Your task to perform on an android device: check data usage Image 0: 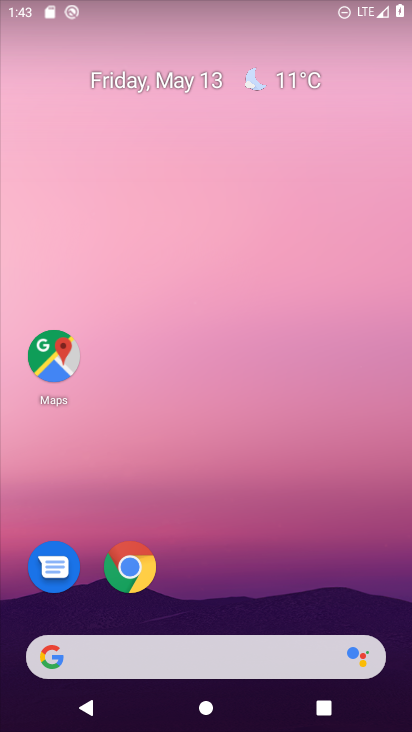
Step 0: drag from (218, 603) to (260, 0)
Your task to perform on an android device: check data usage Image 1: 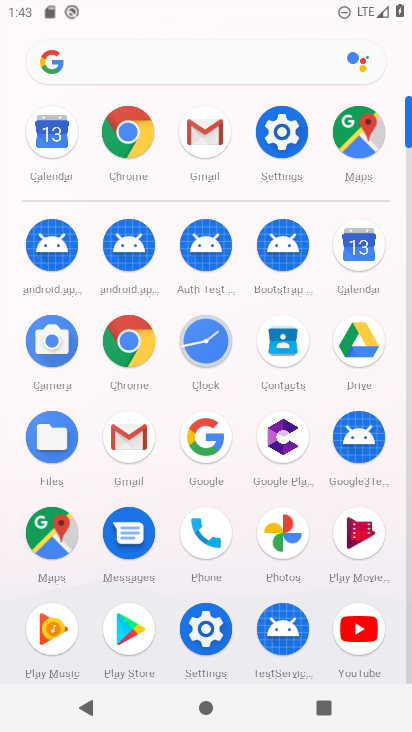
Step 1: click (278, 133)
Your task to perform on an android device: check data usage Image 2: 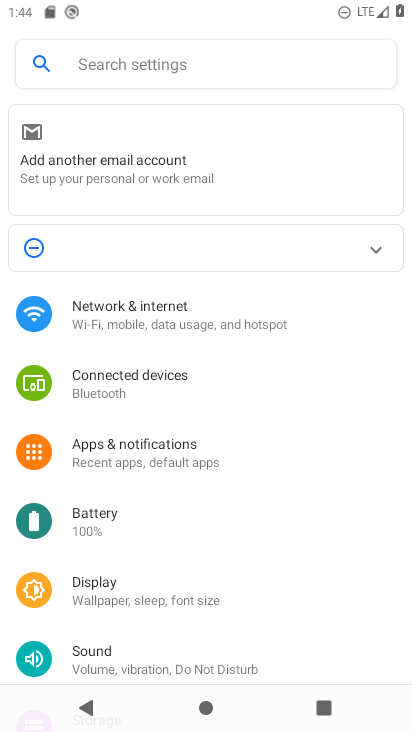
Step 2: click (159, 312)
Your task to perform on an android device: check data usage Image 3: 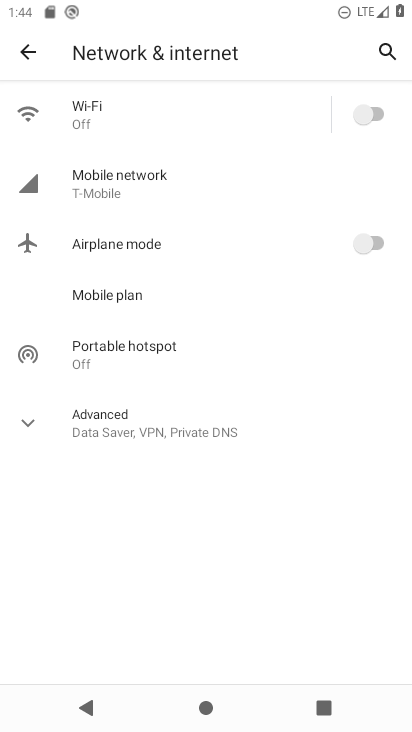
Step 3: click (127, 188)
Your task to perform on an android device: check data usage Image 4: 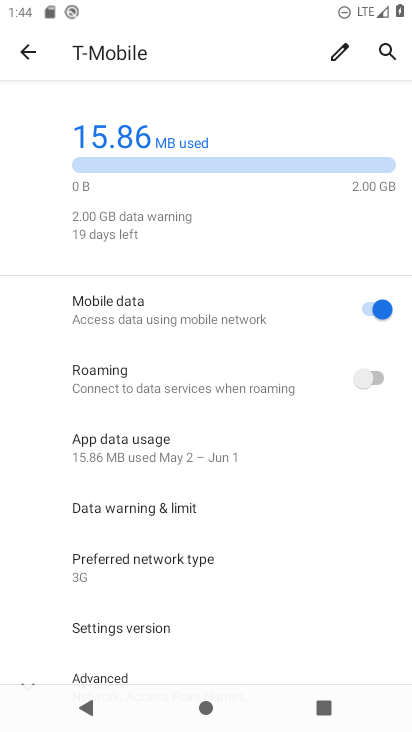
Step 4: click (174, 446)
Your task to perform on an android device: check data usage Image 5: 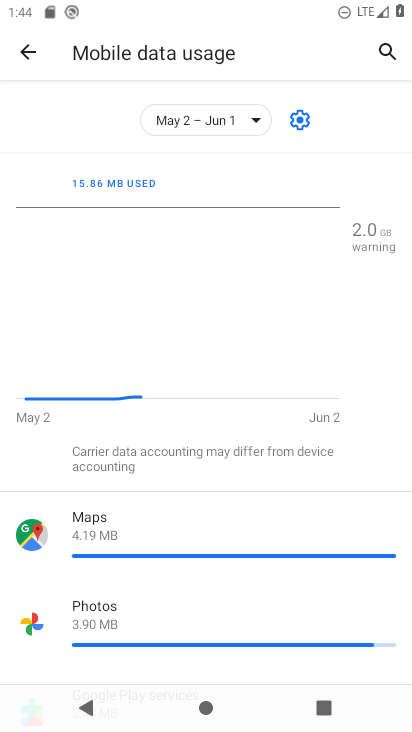
Step 5: task complete